Your task to perform on an android device: Search for vegetarian restaurants on Maps Image 0: 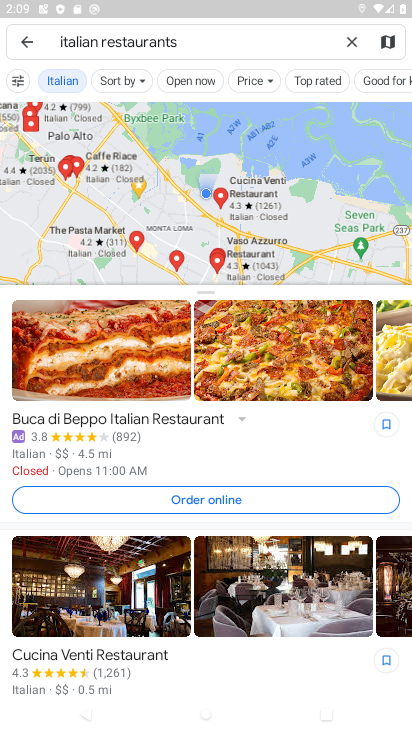
Step 0: press home button
Your task to perform on an android device: Search for vegetarian restaurants on Maps Image 1: 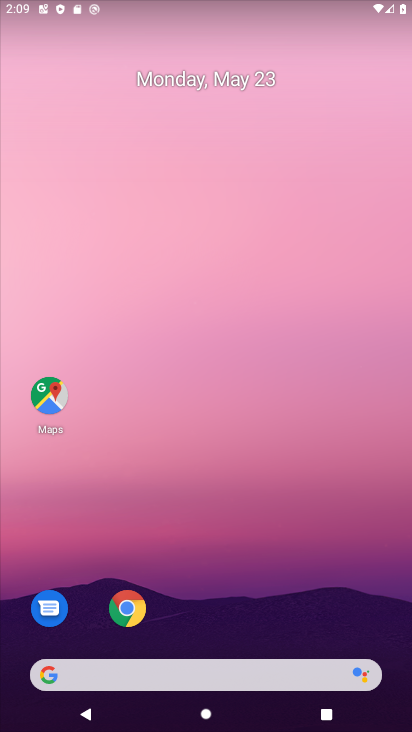
Step 1: click (47, 393)
Your task to perform on an android device: Search for vegetarian restaurants on Maps Image 2: 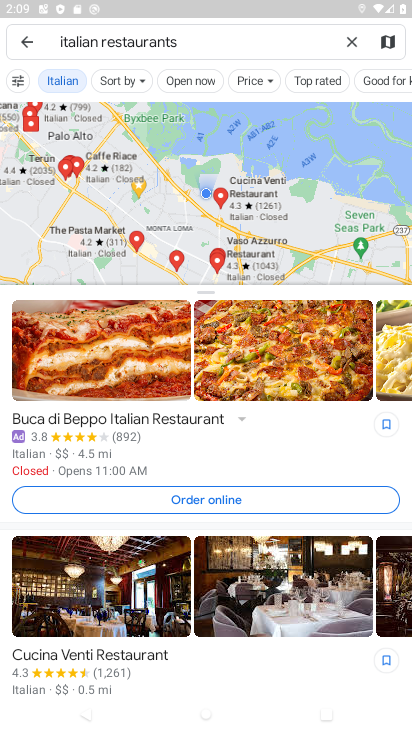
Step 2: click (354, 39)
Your task to perform on an android device: Search for vegetarian restaurants on Maps Image 3: 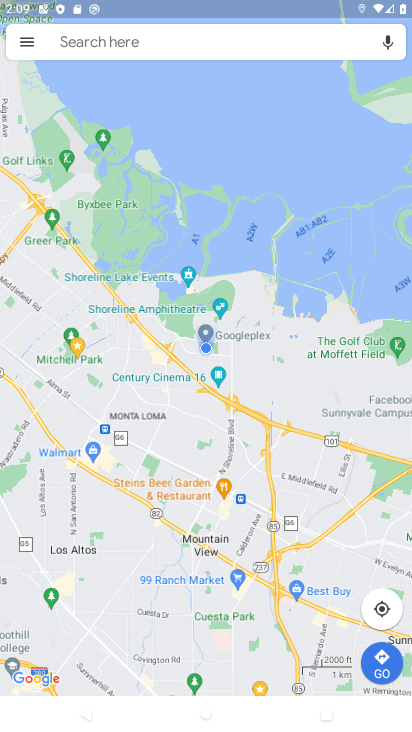
Step 3: click (186, 38)
Your task to perform on an android device: Search for vegetarian restaurants on Maps Image 4: 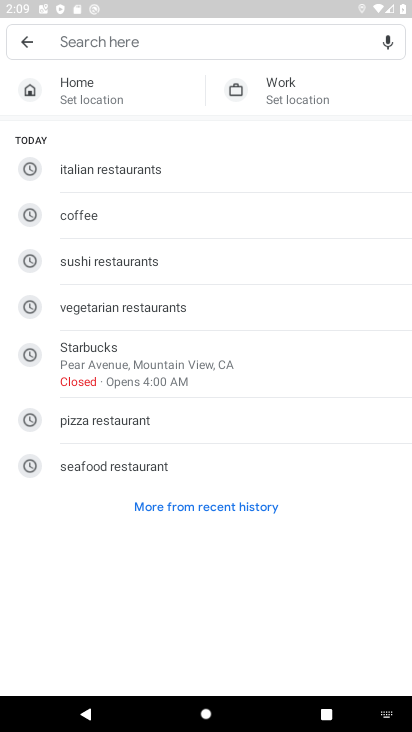
Step 4: click (96, 302)
Your task to perform on an android device: Search for vegetarian restaurants on Maps Image 5: 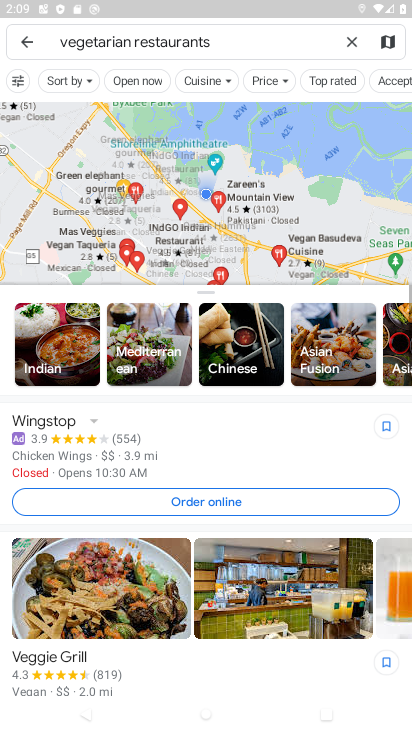
Step 5: task complete